Your task to perform on an android device: Search for sushi restaurants on Maps Image 0: 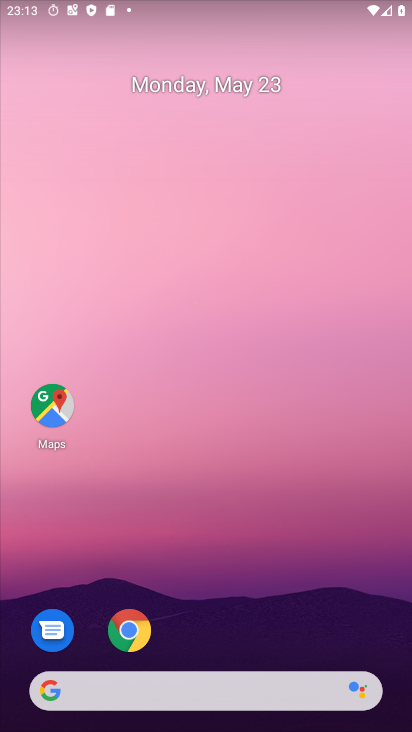
Step 0: click (46, 411)
Your task to perform on an android device: Search for sushi restaurants on Maps Image 1: 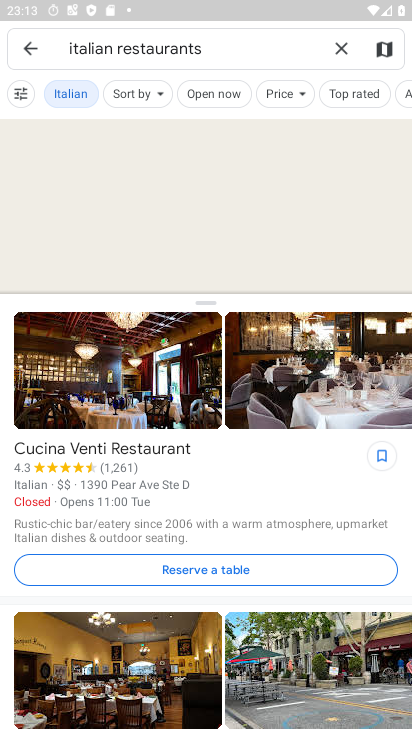
Step 1: click (337, 52)
Your task to perform on an android device: Search for sushi restaurants on Maps Image 2: 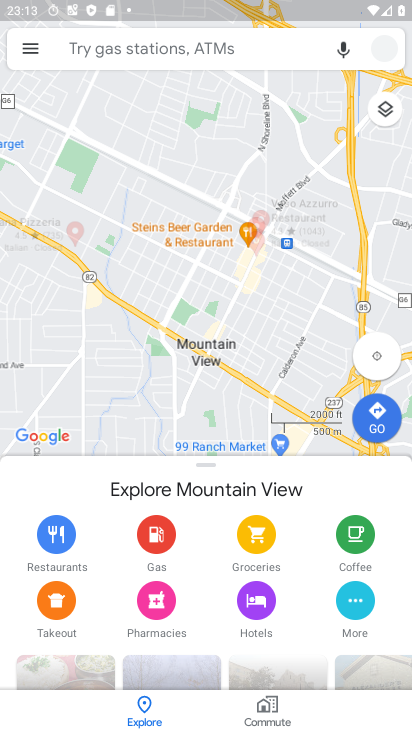
Step 2: click (80, 51)
Your task to perform on an android device: Search for sushi restaurants on Maps Image 3: 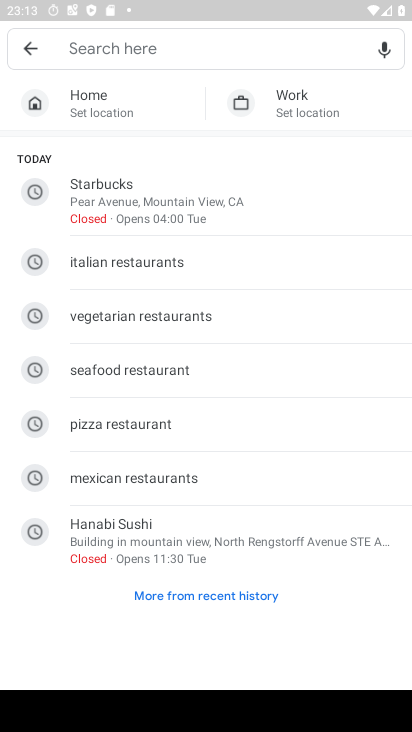
Step 3: type "sushi restaurant"
Your task to perform on an android device: Search for sushi restaurants on Maps Image 4: 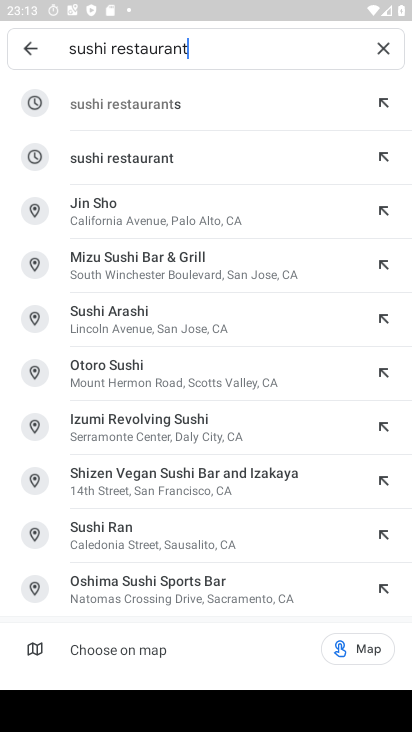
Step 4: click (145, 108)
Your task to perform on an android device: Search for sushi restaurants on Maps Image 5: 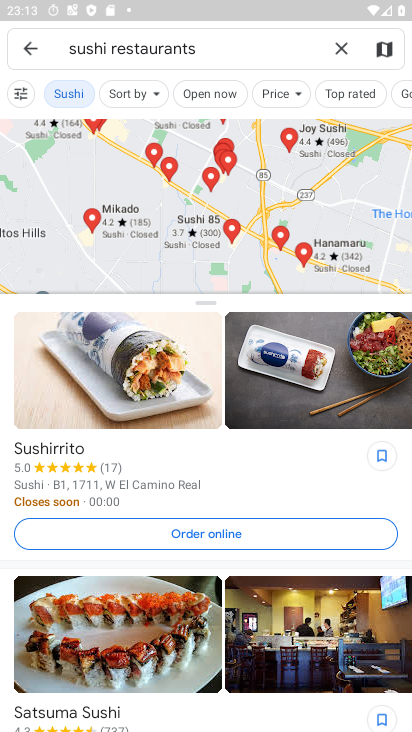
Step 5: task complete